Your task to perform on an android device: uninstall "LiveIn - Share Your Moment" Image 0: 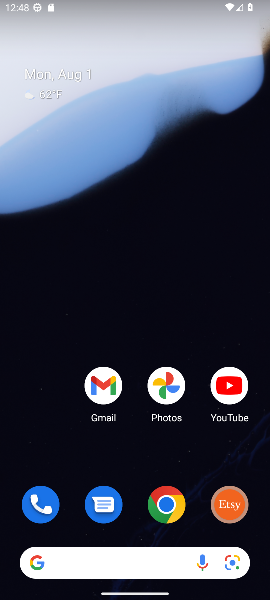
Step 0: drag from (185, 565) to (114, 162)
Your task to perform on an android device: uninstall "LiveIn - Share Your Moment" Image 1: 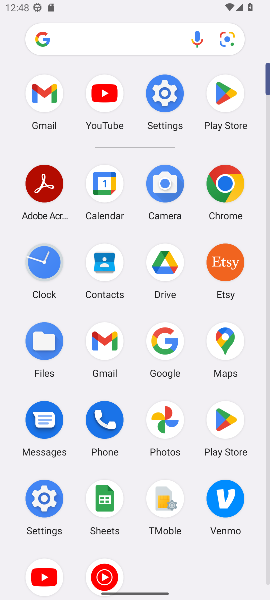
Step 1: click (223, 91)
Your task to perform on an android device: uninstall "LiveIn - Share Your Moment" Image 2: 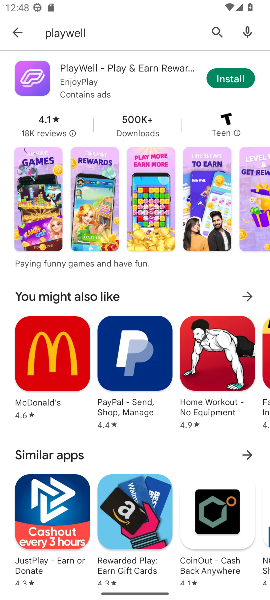
Step 2: click (213, 29)
Your task to perform on an android device: uninstall "LiveIn - Share Your Moment" Image 3: 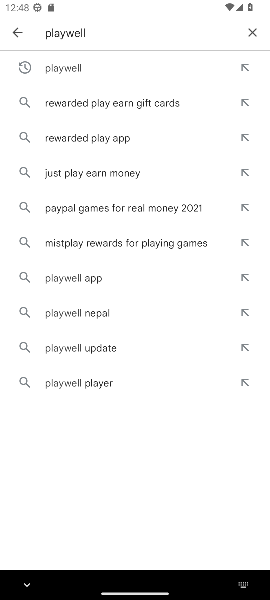
Step 3: click (254, 29)
Your task to perform on an android device: uninstall "LiveIn - Share Your Moment" Image 4: 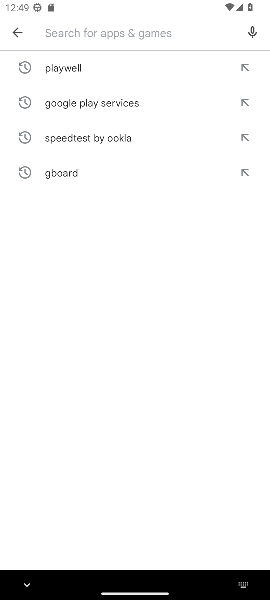
Step 4: type "livein  - share your moment"
Your task to perform on an android device: uninstall "LiveIn - Share Your Moment" Image 5: 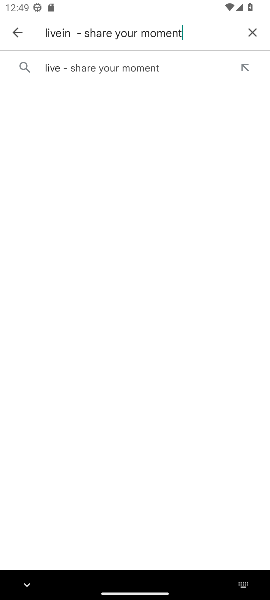
Step 5: click (170, 67)
Your task to perform on an android device: uninstall "LiveIn - Share Your Moment" Image 6: 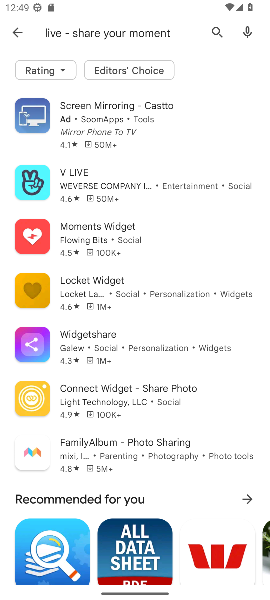
Step 6: task complete